Your task to perform on an android device: check android version Image 0: 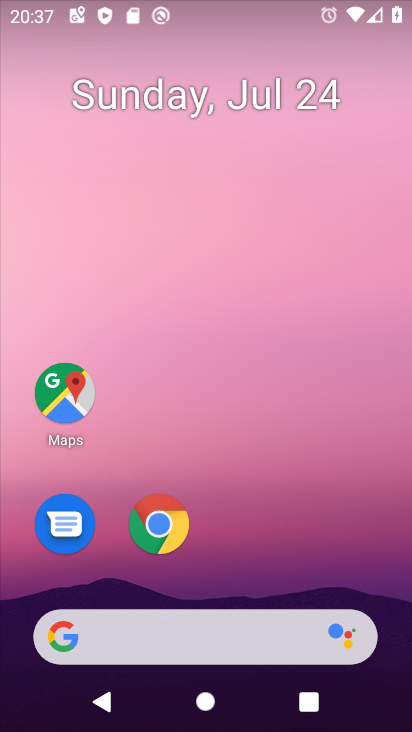
Step 0: drag from (216, 564) to (277, 1)
Your task to perform on an android device: check android version Image 1: 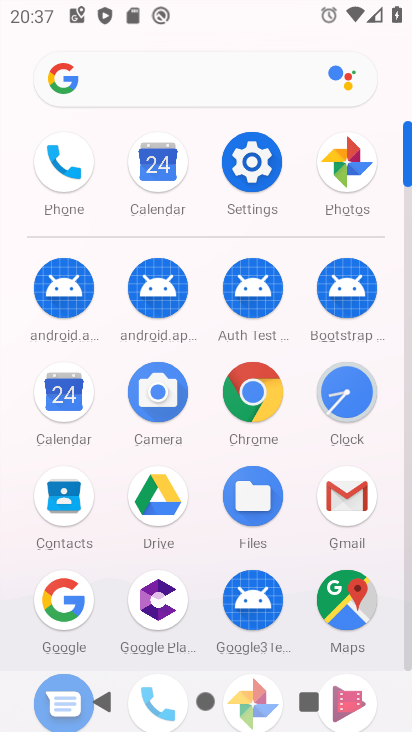
Step 1: click (259, 158)
Your task to perform on an android device: check android version Image 2: 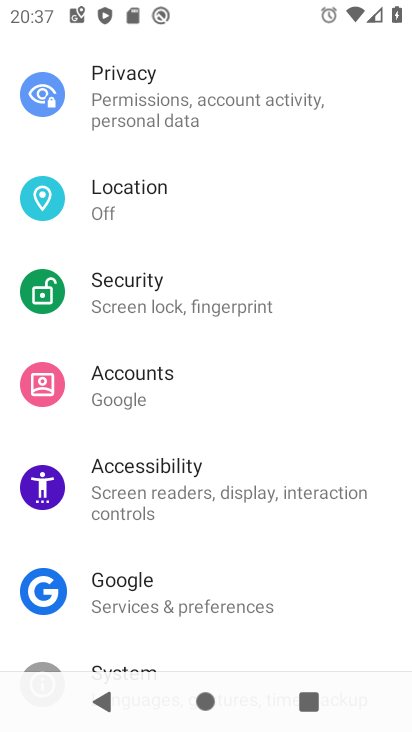
Step 2: drag from (211, 551) to (228, 16)
Your task to perform on an android device: check android version Image 3: 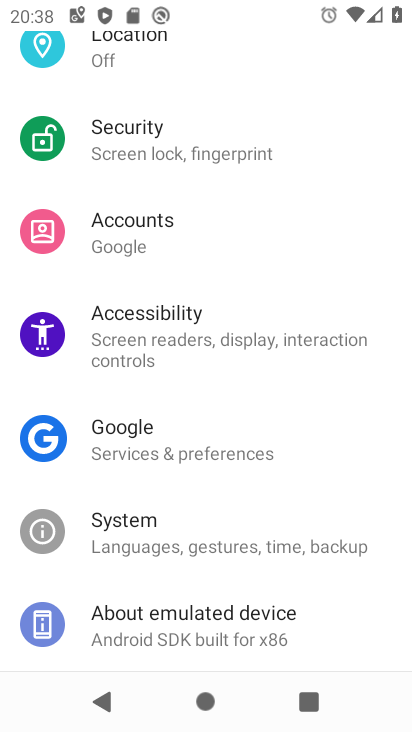
Step 3: click (196, 638)
Your task to perform on an android device: check android version Image 4: 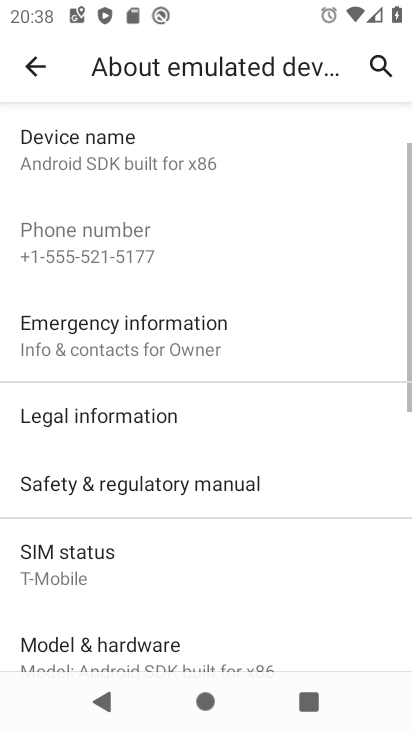
Step 4: drag from (217, 592) to (238, 192)
Your task to perform on an android device: check android version Image 5: 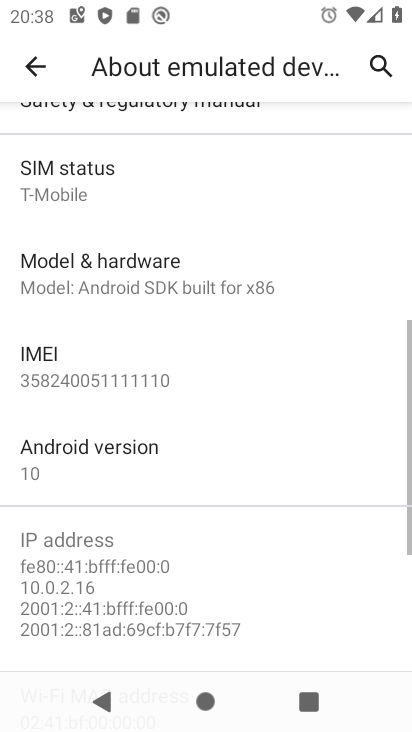
Step 5: click (103, 460)
Your task to perform on an android device: check android version Image 6: 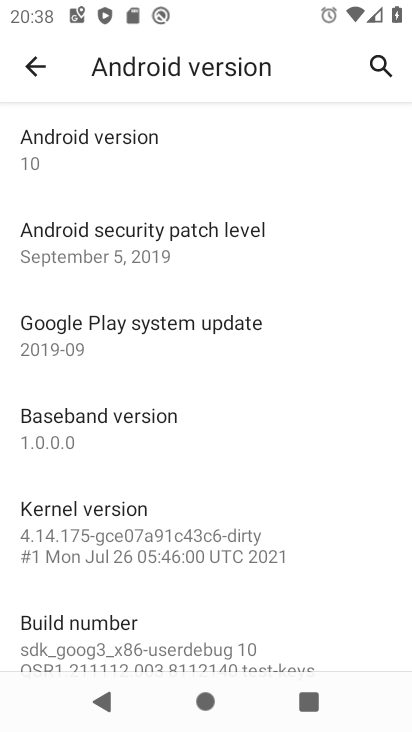
Step 6: task complete